Your task to perform on an android device: What is the recent news? Image 0: 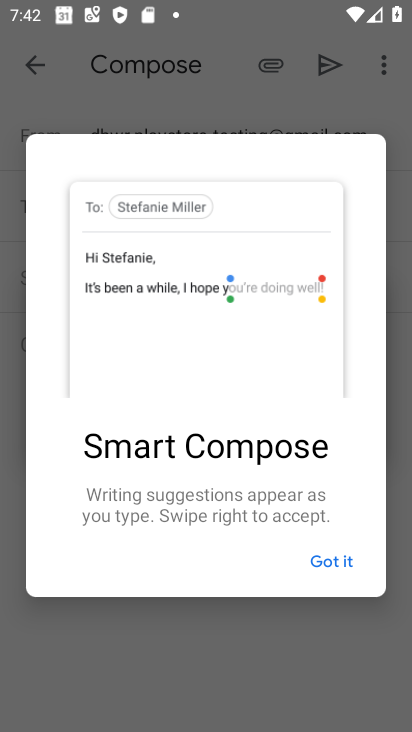
Step 0: press home button
Your task to perform on an android device: What is the recent news? Image 1: 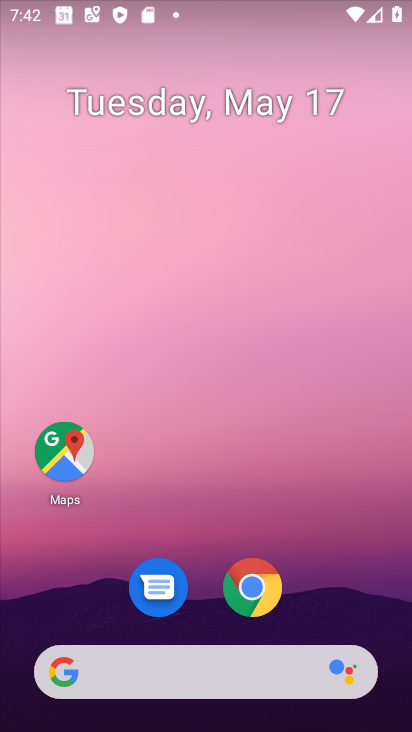
Step 1: drag from (224, 640) to (202, 311)
Your task to perform on an android device: What is the recent news? Image 2: 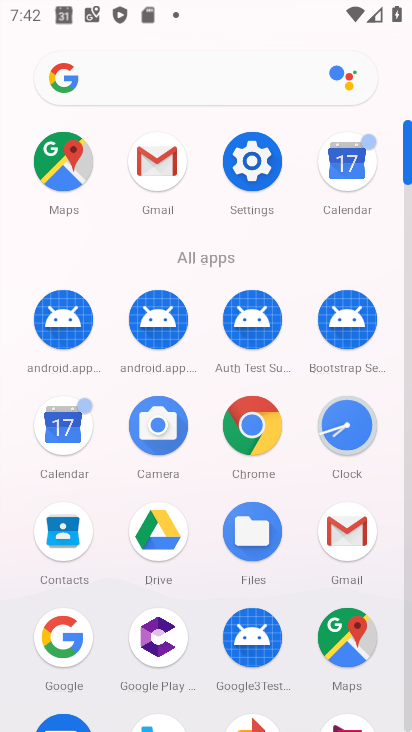
Step 2: click (65, 638)
Your task to perform on an android device: What is the recent news? Image 3: 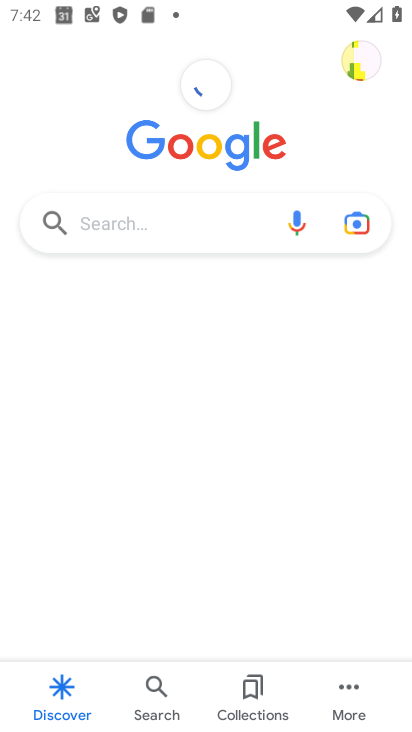
Step 3: click (167, 221)
Your task to perform on an android device: What is the recent news? Image 4: 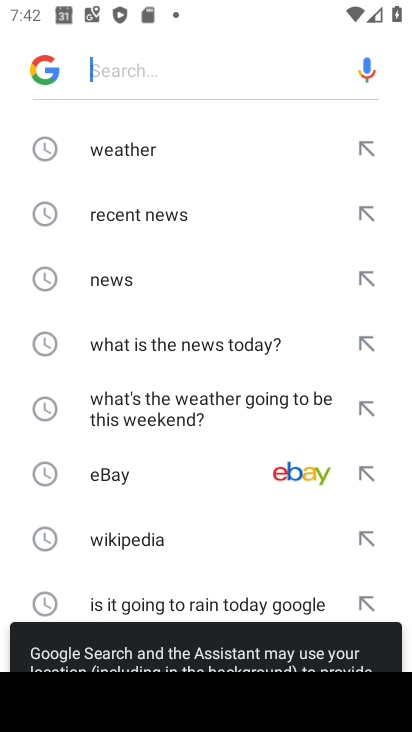
Step 4: click (134, 221)
Your task to perform on an android device: What is the recent news? Image 5: 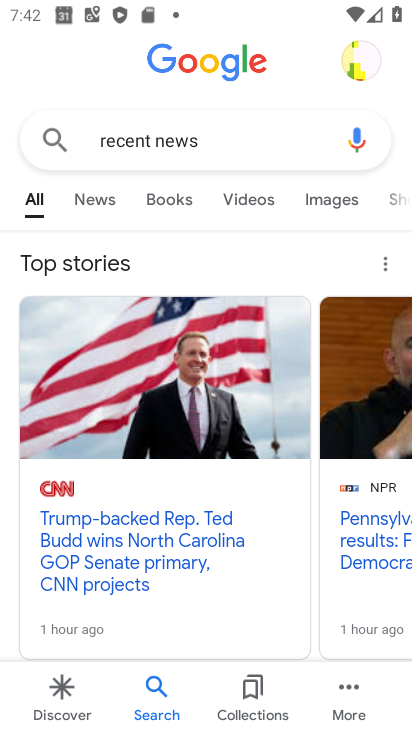
Step 5: task complete